Your task to perform on an android device: Open Reddit.com Image 0: 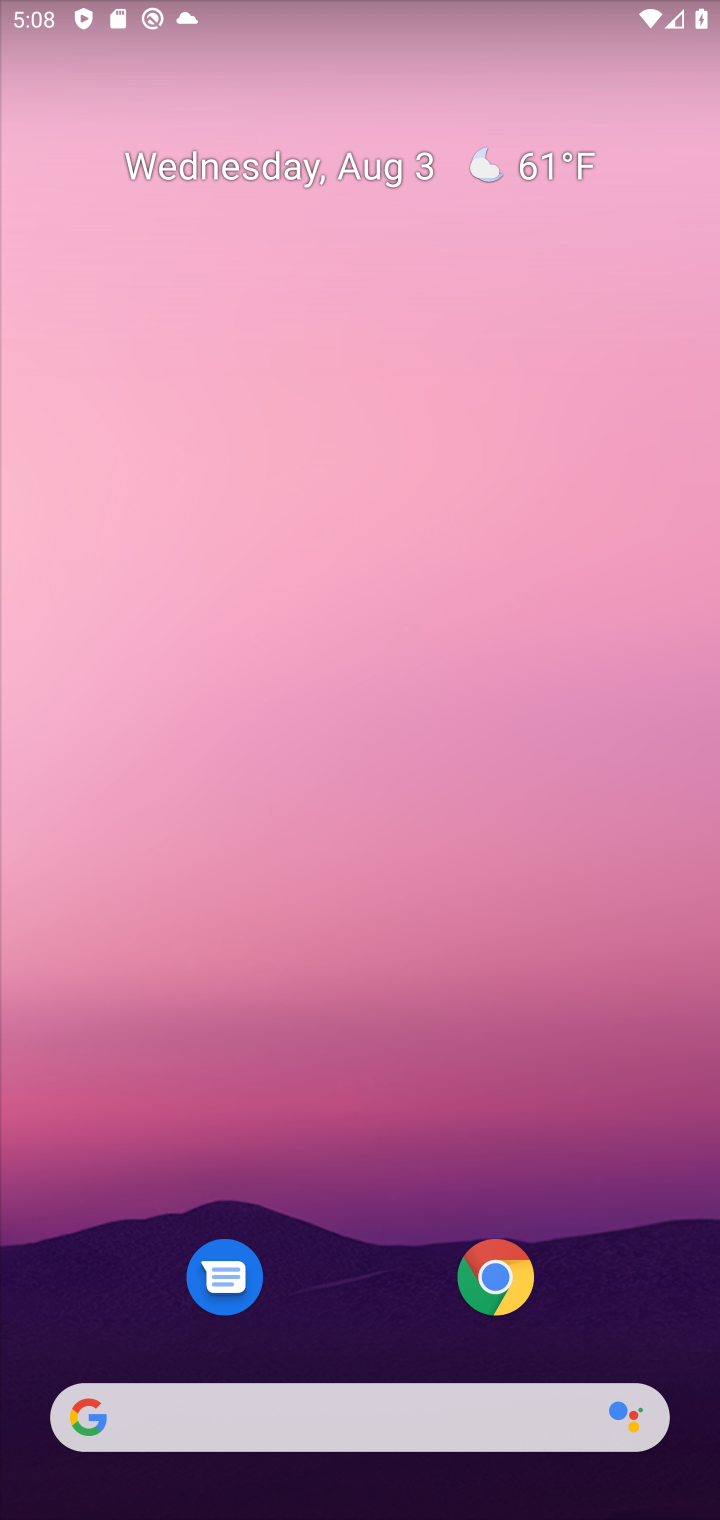
Step 0: click (492, 1286)
Your task to perform on an android device: Open Reddit.com Image 1: 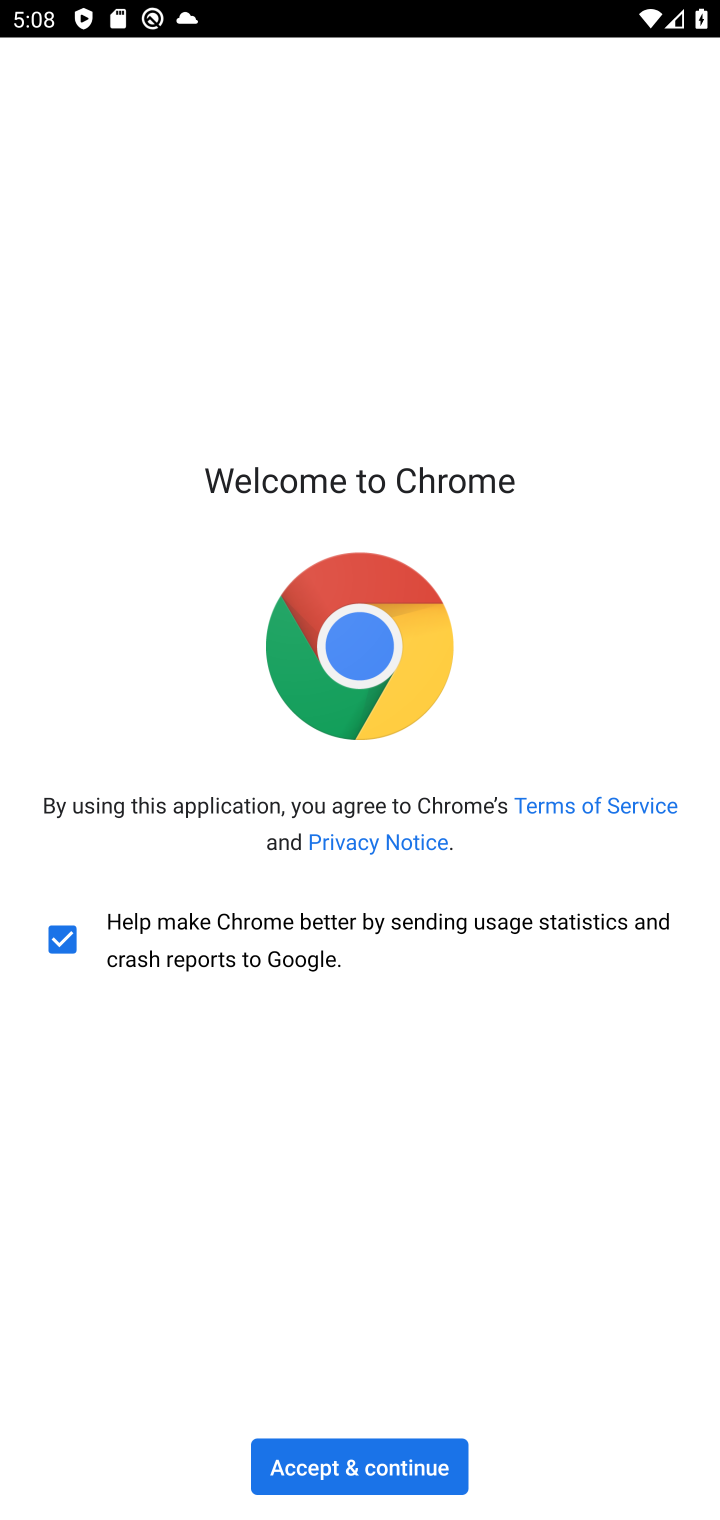
Step 1: click (389, 1461)
Your task to perform on an android device: Open Reddit.com Image 2: 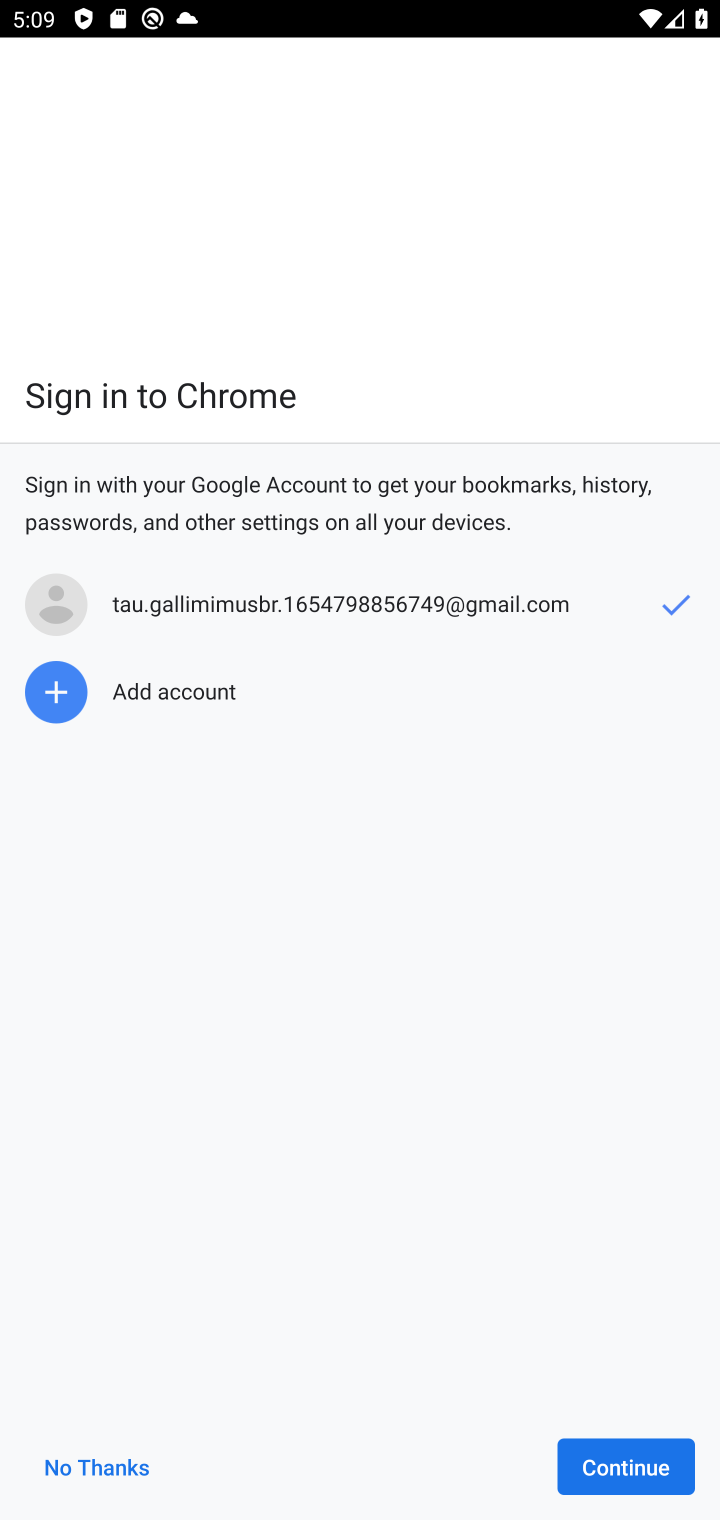
Step 2: click (577, 1479)
Your task to perform on an android device: Open Reddit.com Image 3: 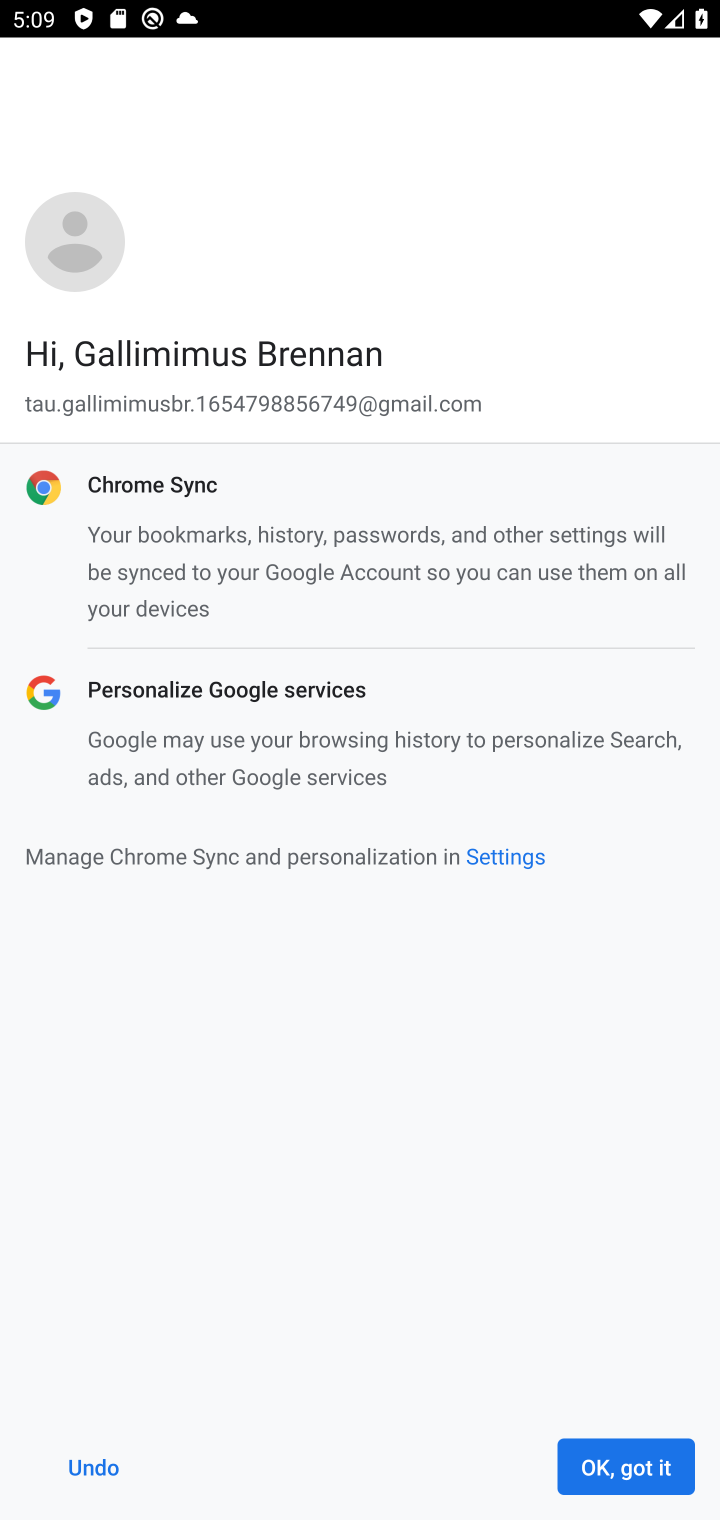
Step 3: click (645, 1471)
Your task to perform on an android device: Open Reddit.com Image 4: 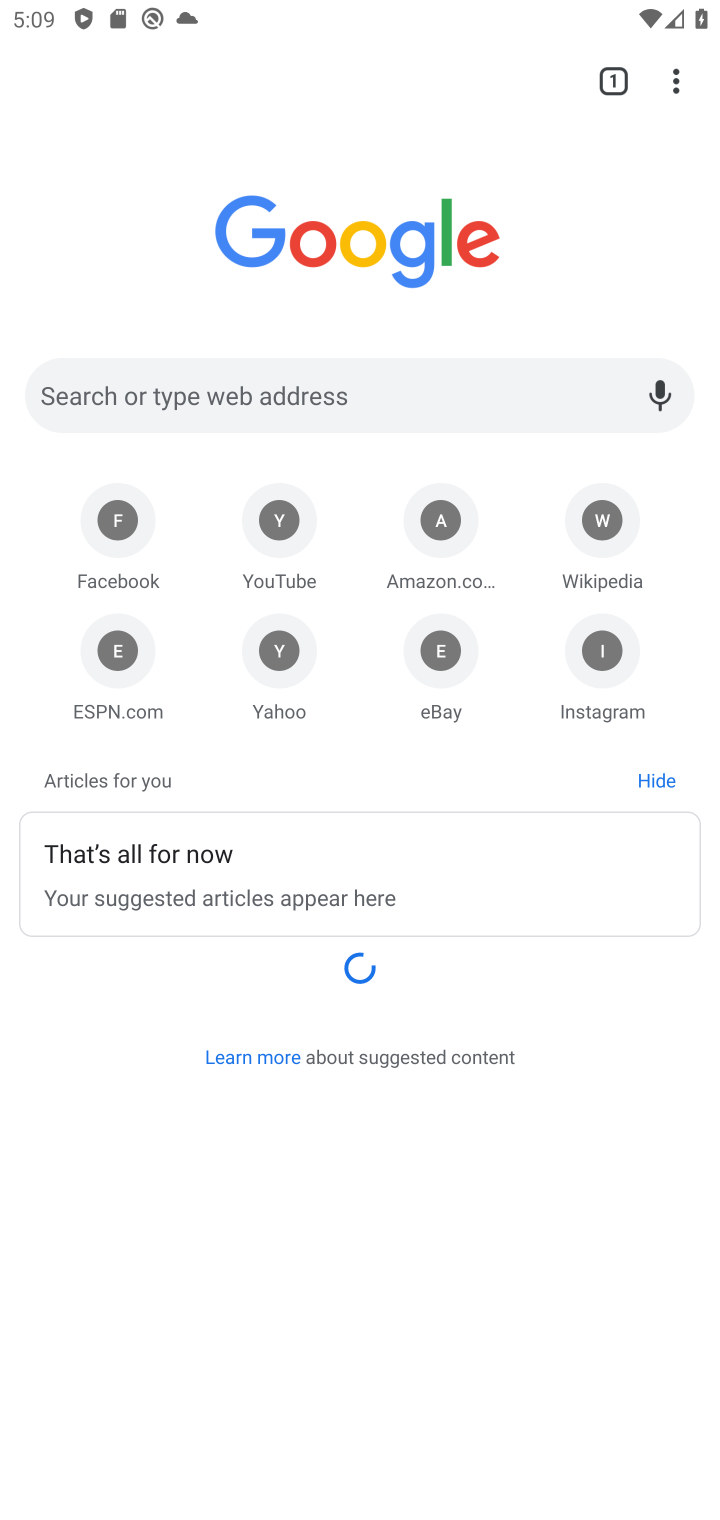
Step 4: click (390, 399)
Your task to perform on an android device: Open Reddit.com Image 5: 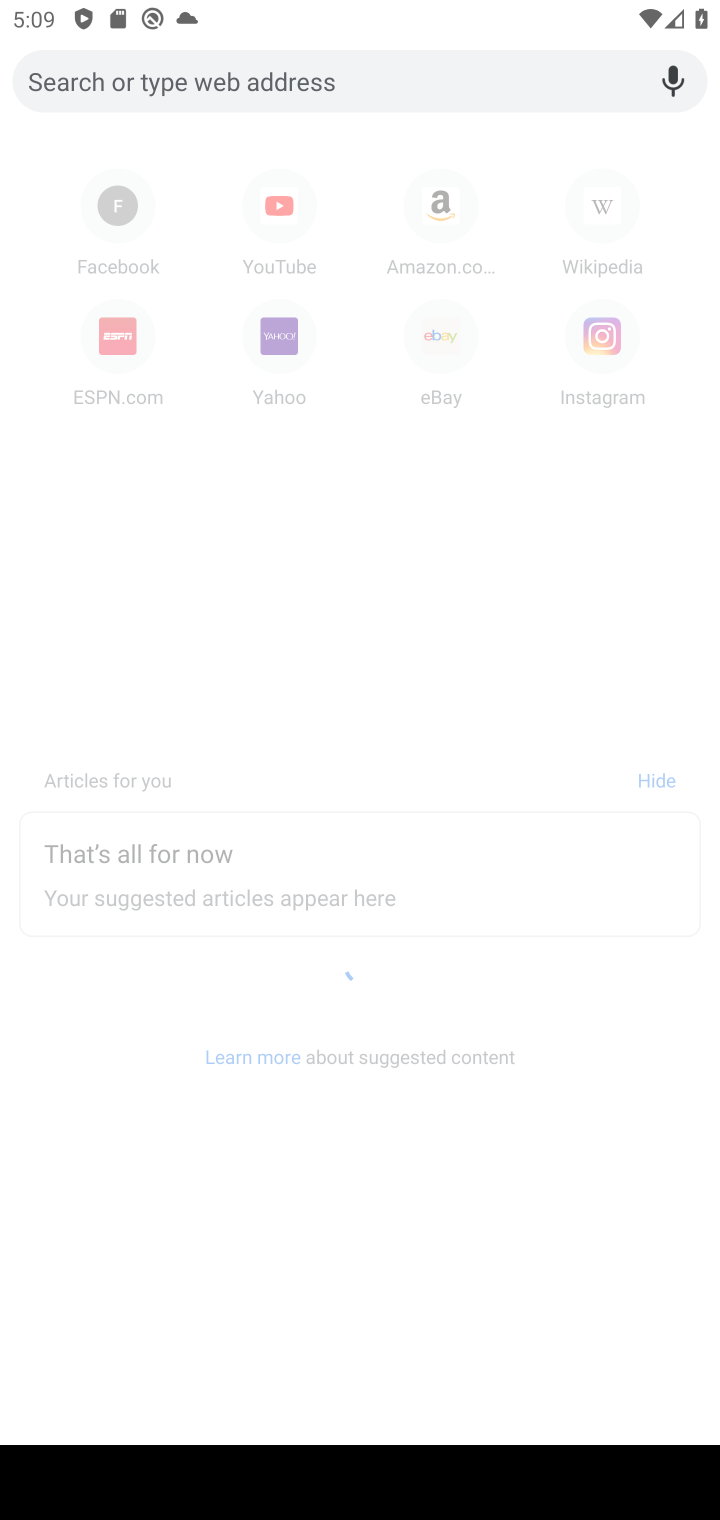
Step 5: type "reddit.com"
Your task to perform on an android device: Open Reddit.com Image 6: 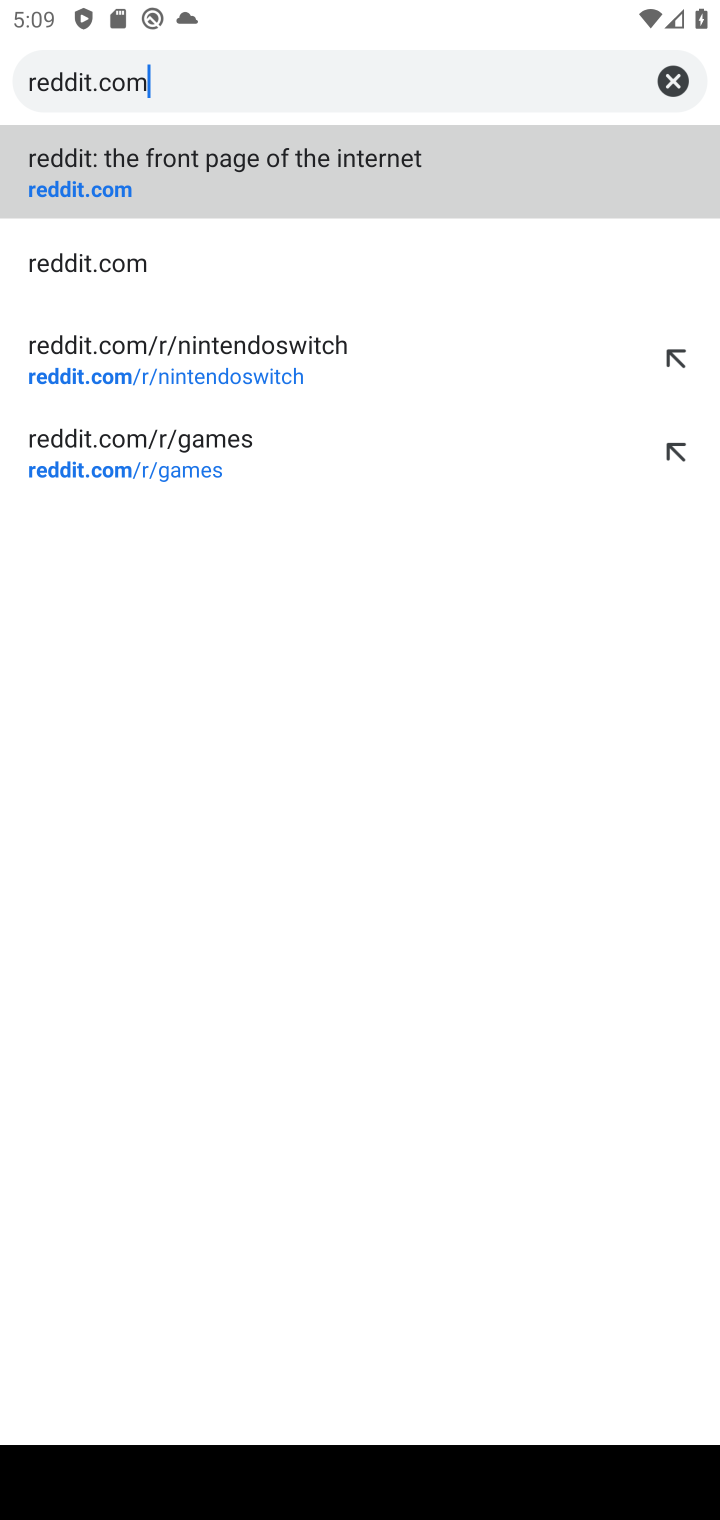
Step 6: click (83, 189)
Your task to perform on an android device: Open Reddit.com Image 7: 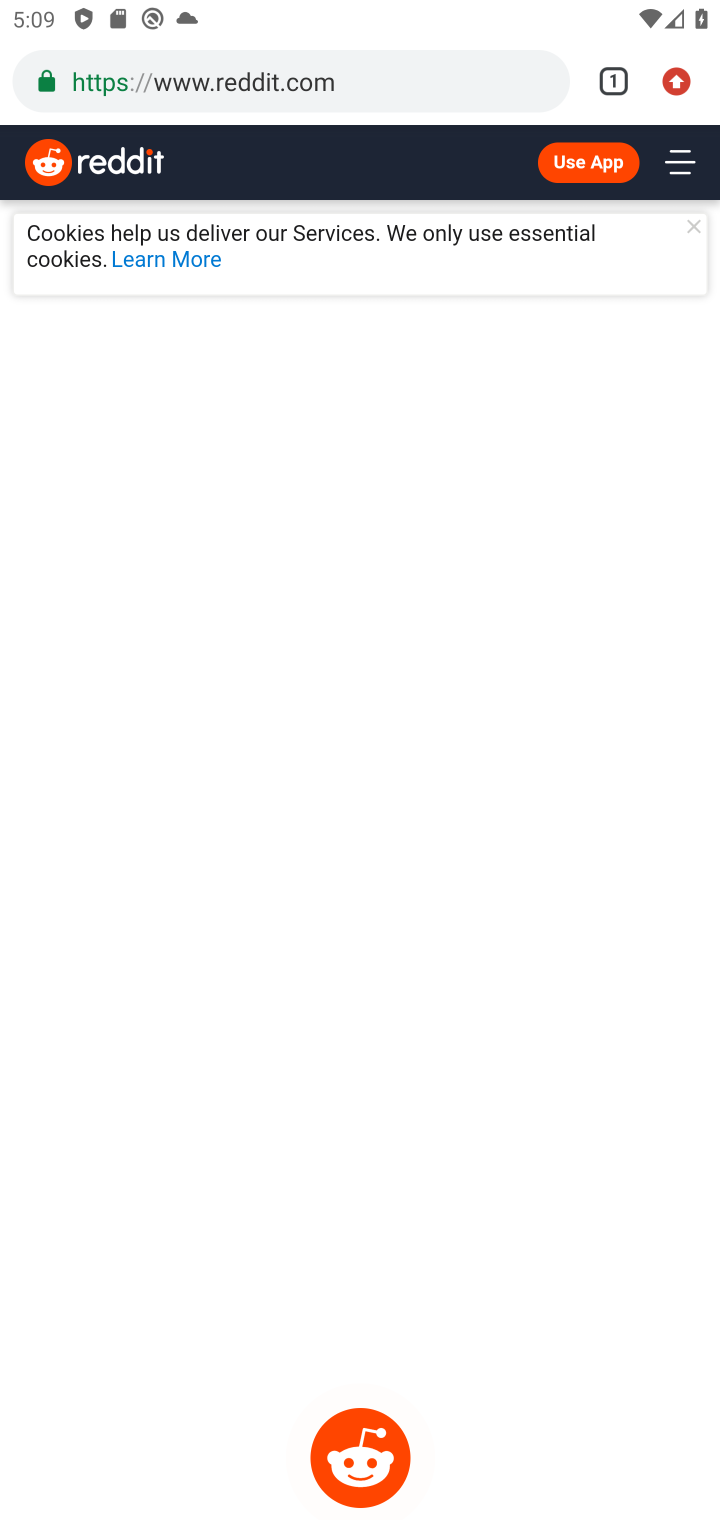
Step 7: task complete